Your task to perform on an android device: Open display settings Image 0: 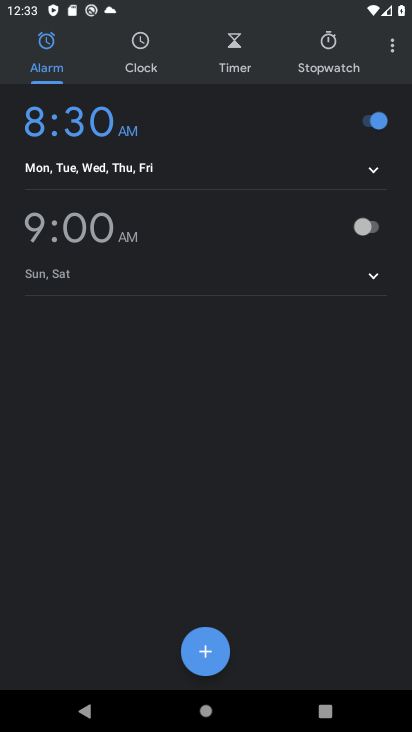
Step 0: press home button
Your task to perform on an android device: Open display settings Image 1: 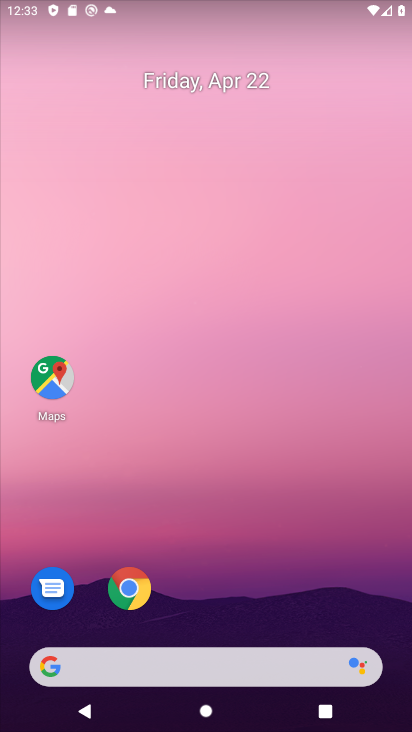
Step 1: drag from (290, 696) to (172, 216)
Your task to perform on an android device: Open display settings Image 2: 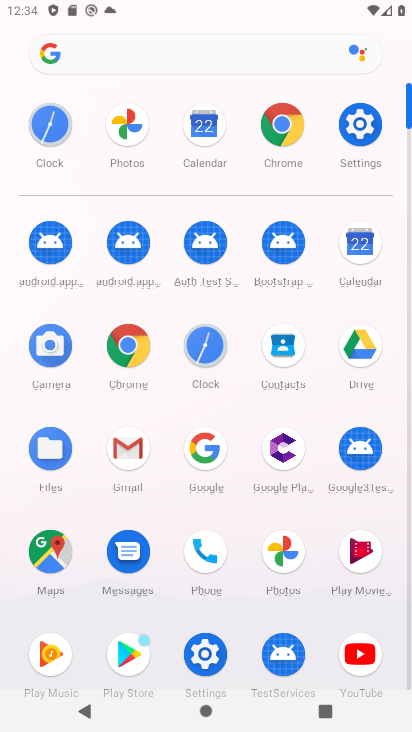
Step 2: click (345, 112)
Your task to perform on an android device: Open display settings Image 3: 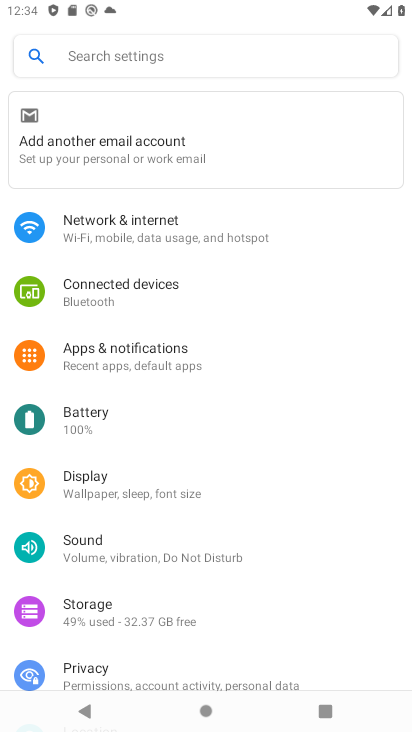
Step 3: click (81, 492)
Your task to perform on an android device: Open display settings Image 4: 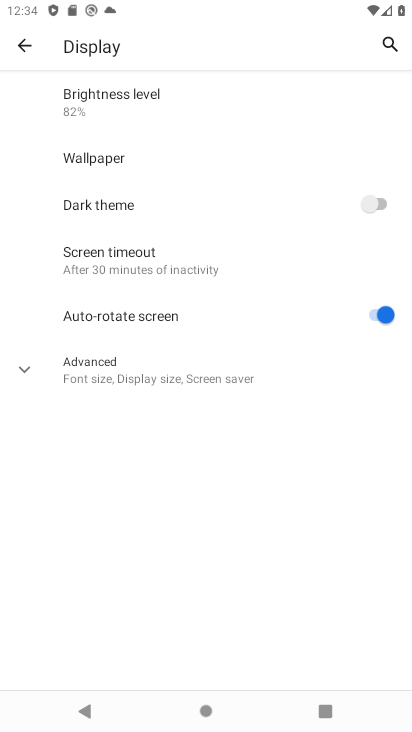
Step 4: task complete